Your task to perform on an android device: install app "ZOOM Cloud Meetings" Image 0: 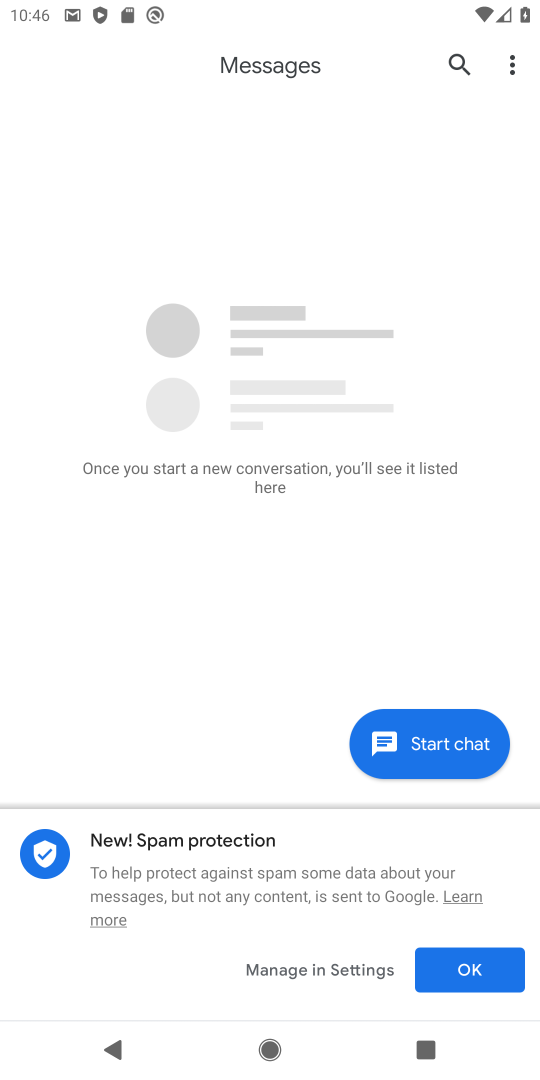
Step 0: press home button
Your task to perform on an android device: install app "ZOOM Cloud Meetings" Image 1: 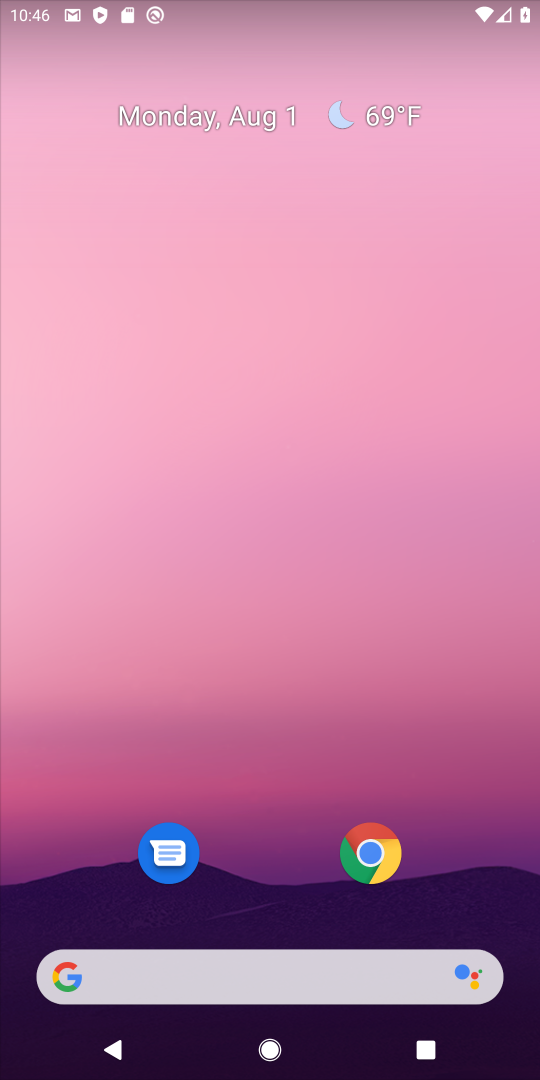
Step 1: drag from (496, 831) to (374, 198)
Your task to perform on an android device: install app "ZOOM Cloud Meetings" Image 2: 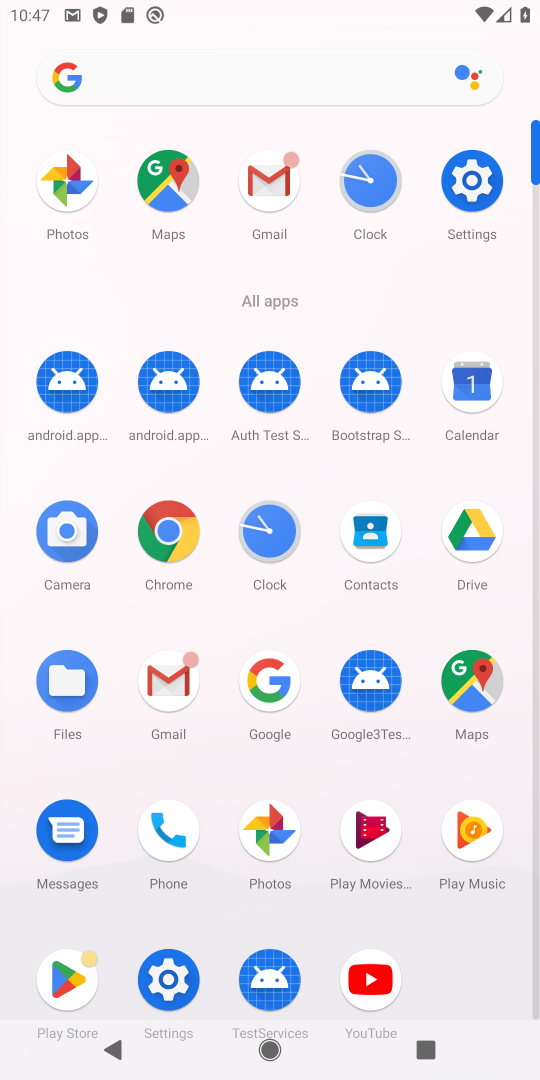
Step 2: click (65, 972)
Your task to perform on an android device: install app "ZOOM Cloud Meetings" Image 3: 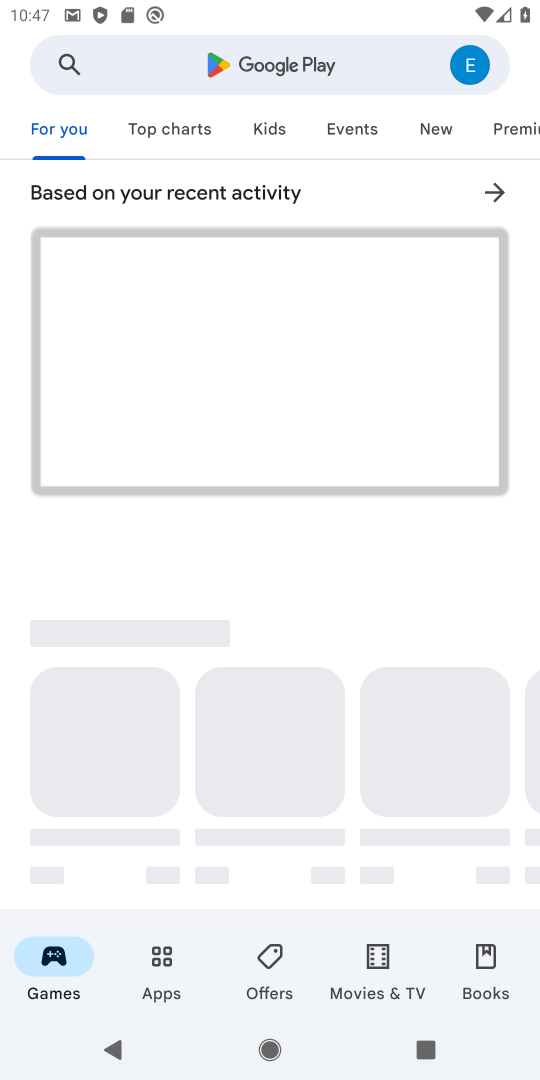
Step 3: click (340, 56)
Your task to perform on an android device: install app "ZOOM Cloud Meetings" Image 4: 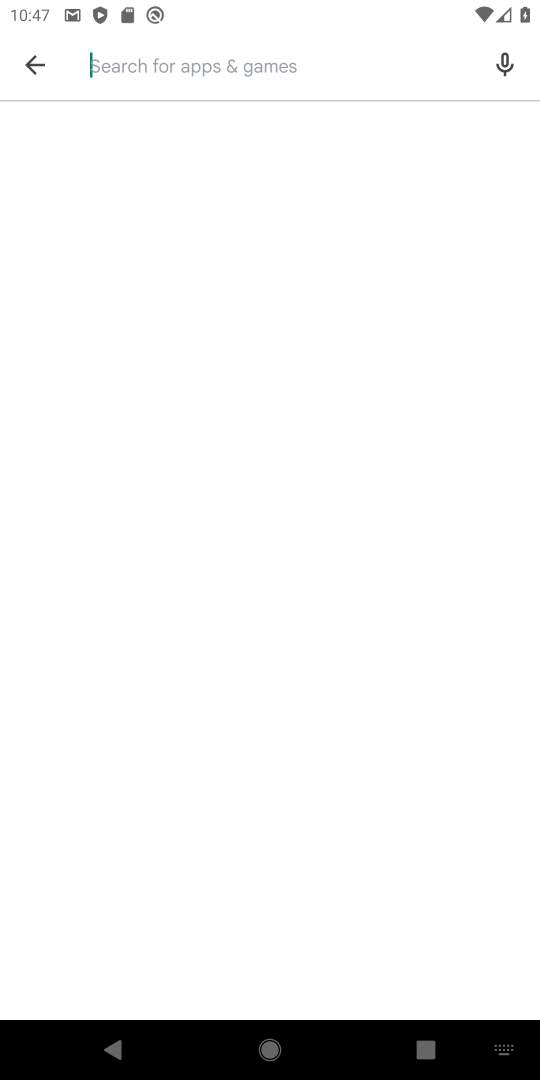
Step 4: type "ZOOM Cloud Meetings"
Your task to perform on an android device: install app "ZOOM Cloud Meetings" Image 5: 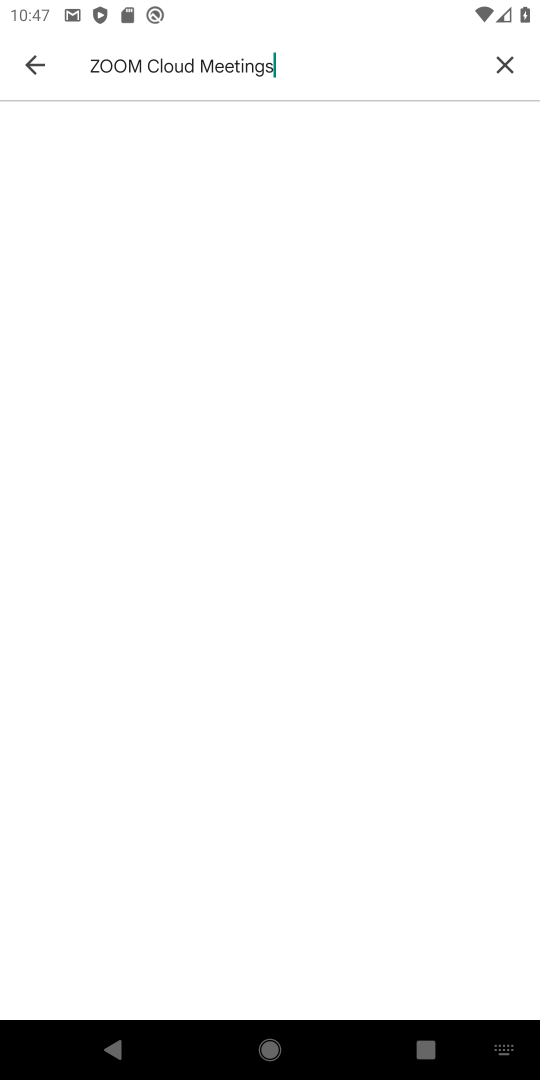
Step 5: type ""
Your task to perform on an android device: install app "ZOOM Cloud Meetings" Image 6: 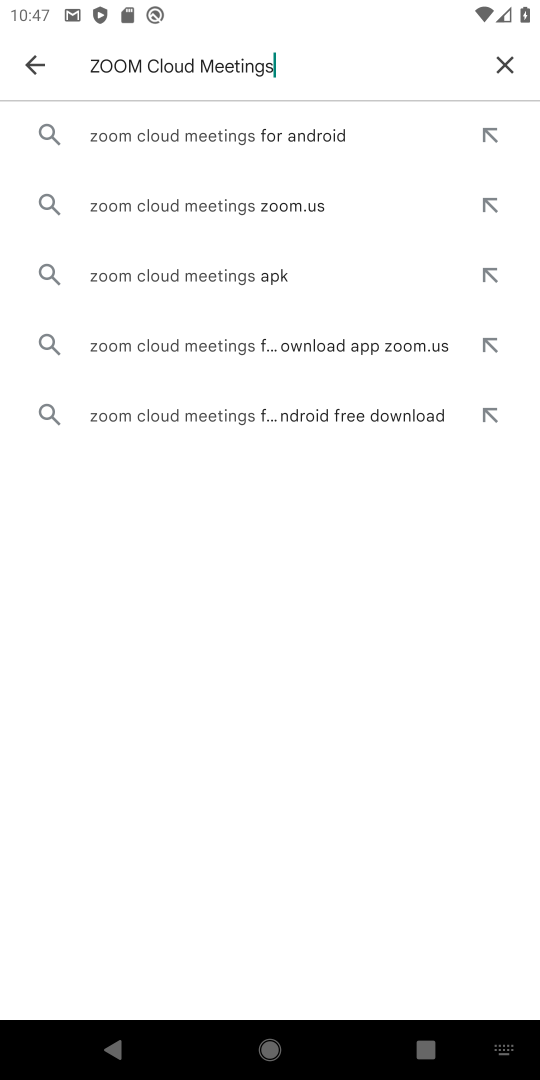
Step 6: click (156, 133)
Your task to perform on an android device: install app "ZOOM Cloud Meetings" Image 7: 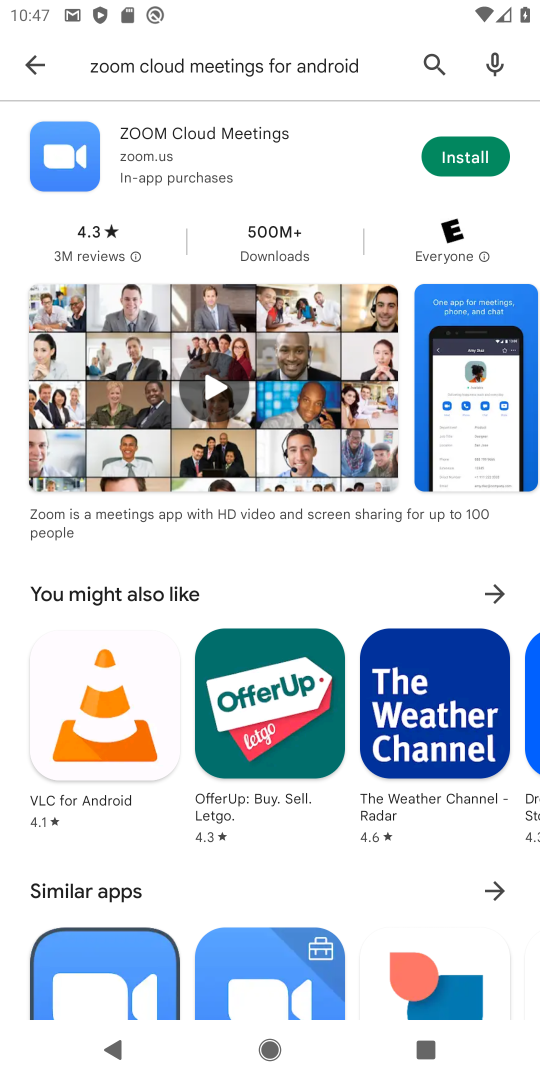
Step 7: click (474, 157)
Your task to perform on an android device: install app "ZOOM Cloud Meetings" Image 8: 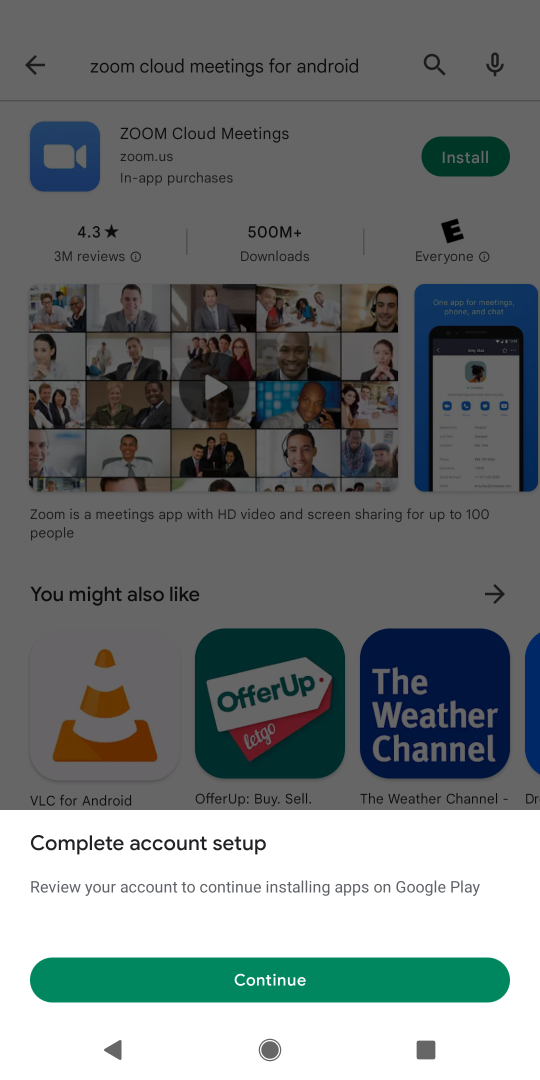
Step 8: click (171, 986)
Your task to perform on an android device: install app "ZOOM Cloud Meetings" Image 9: 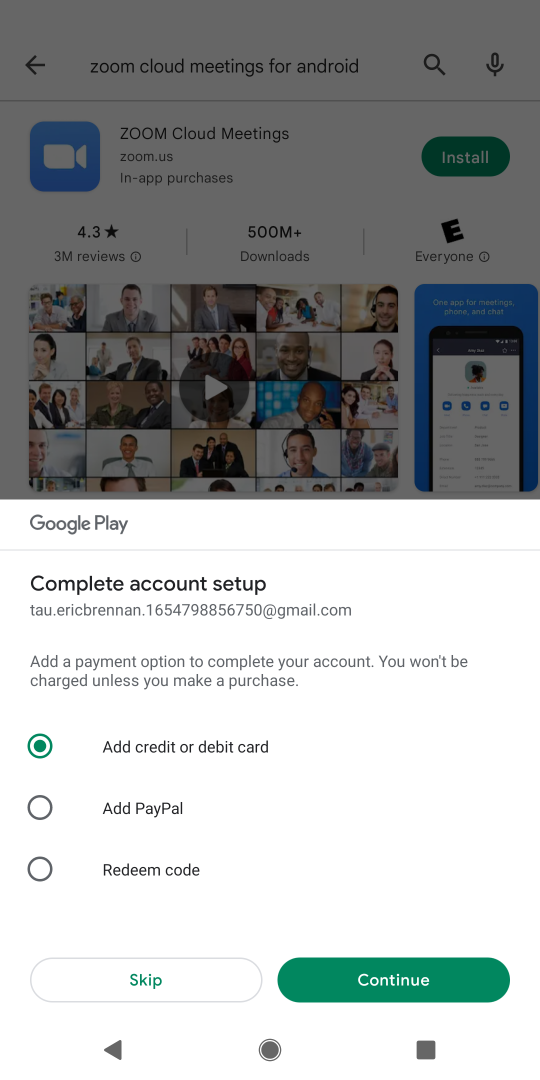
Step 9: click (171, 986)
Your task to perform on an android device: install app "ZOOM Cloud Meetings" Image 10: 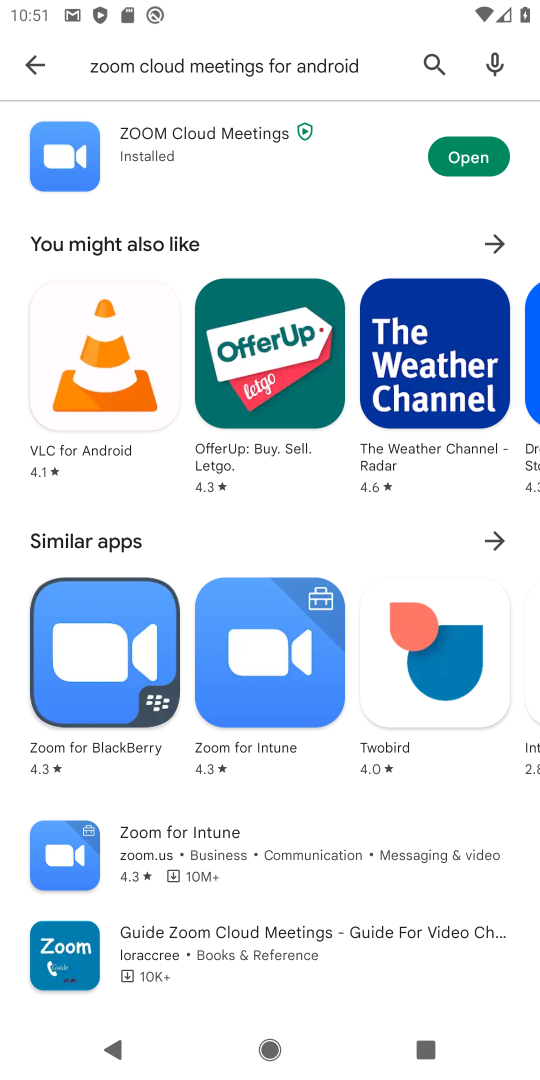
Step 10: task complete